Your task to perform on an android device: change notifications settings Image 0: 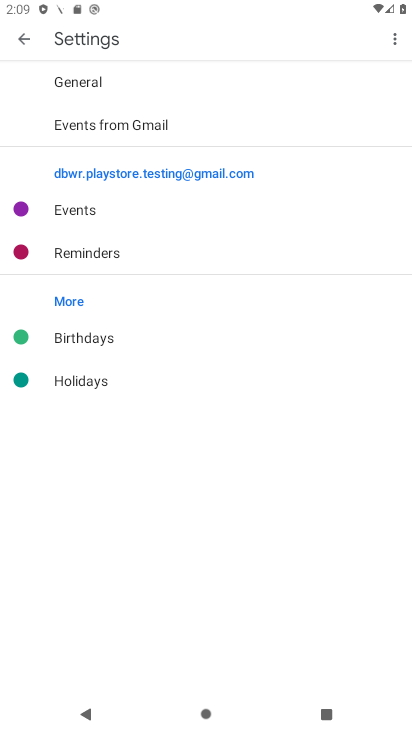
Step 0: press home button
Your task to perform on an android device: change notifications settings Image 1: 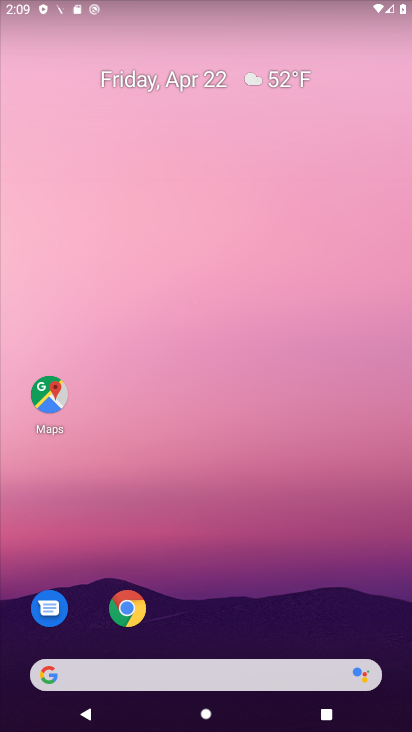
Step 1: drag from (228, 568) to (236, 137)
Your task to perform on an android device: change notifications settings Image 2: 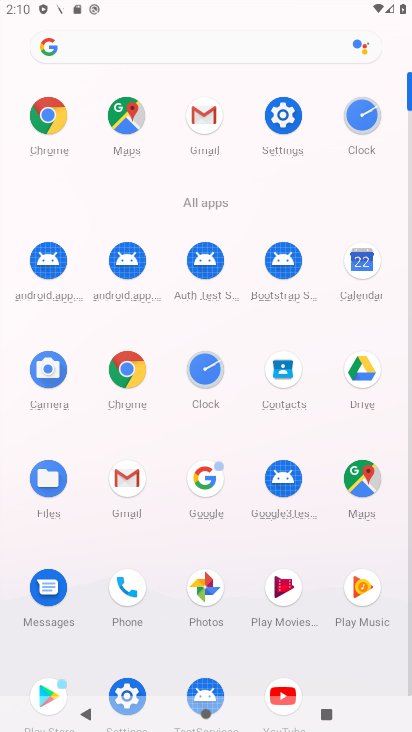
Step 2: click (286, 110)
Your task to perform on an android device: change notifications settings Image 3: 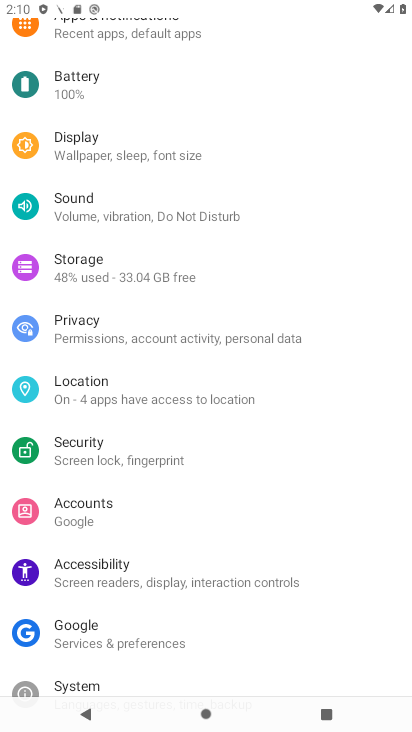
Step 3: click (138, 29)
Your task to perform on an android device: change notifications settings Image 4: 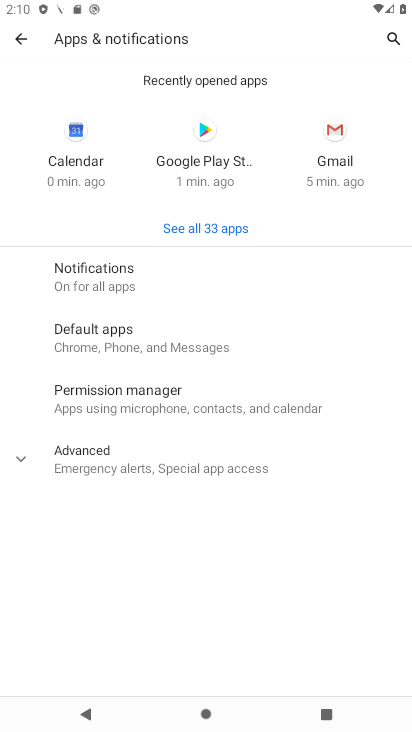
Step 4: click (146, 280)
Your task to perform on an android device: change notifications settings Image 5: 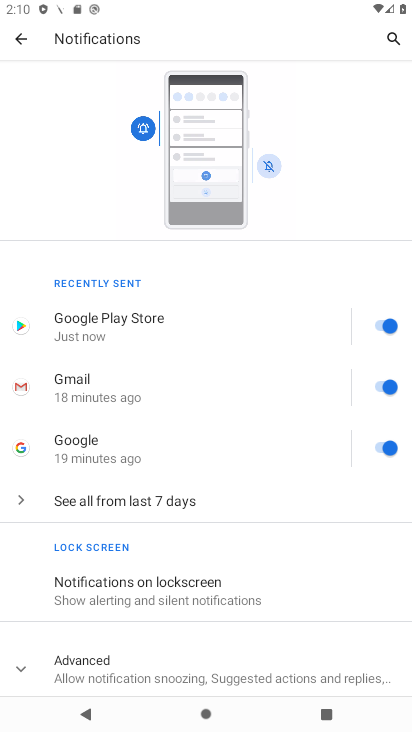
Step 5: click (378, 446)
Your task to perform on an android device: change notifications settings Image 6: 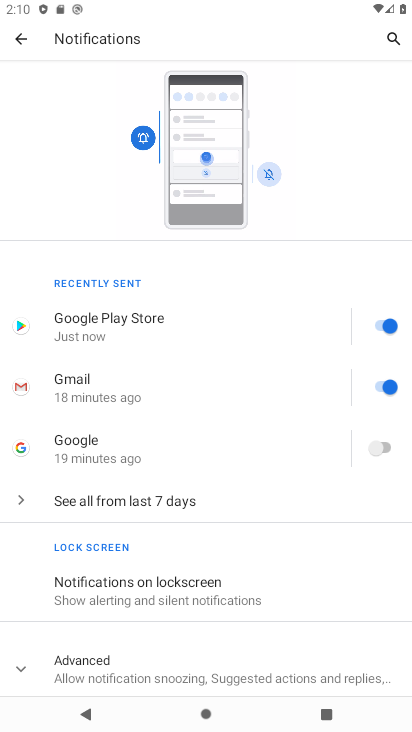
Step 6: task complete